Your task to perform on an android device: turn off notifications in google photos Image 0: 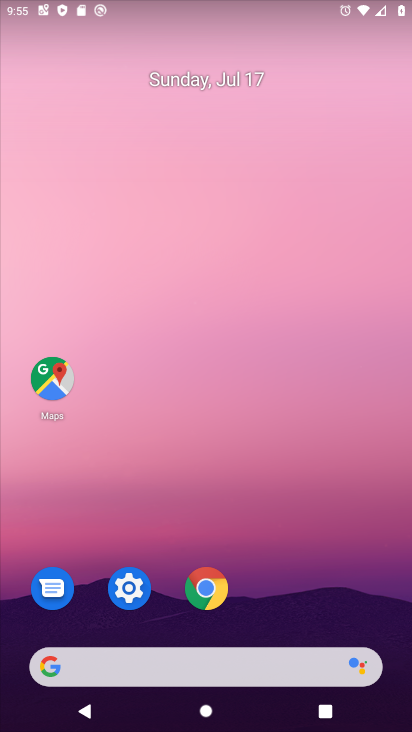
Step 0: drag from (265, 581) to (253, 282)
Your task to perform on an android device: turn off notifications in google photos Image 1: 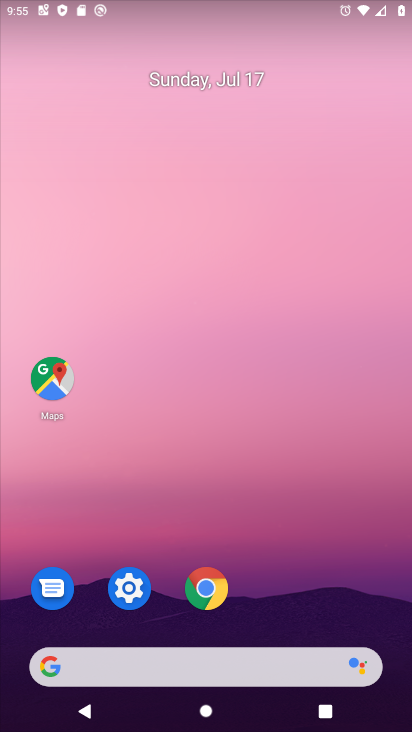
Step 1: drag from (249, 671) to (199, 123)
Your task to perform on an android device: turn off notifications in google photos Image 2: 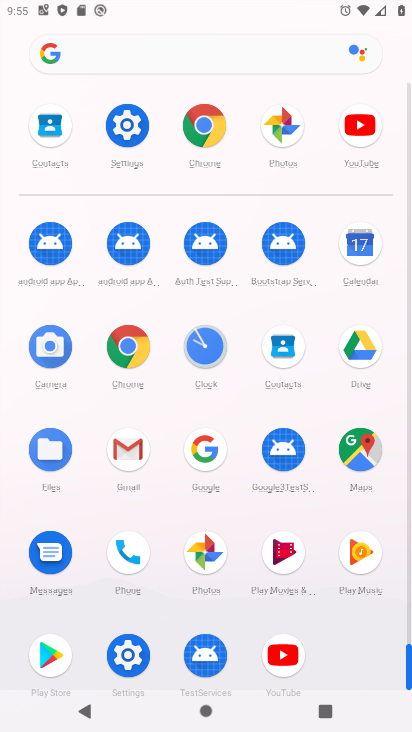
Step 2: click (120, 661)
Your task to perform on an android device: turn off notifications in google photos Image 3: 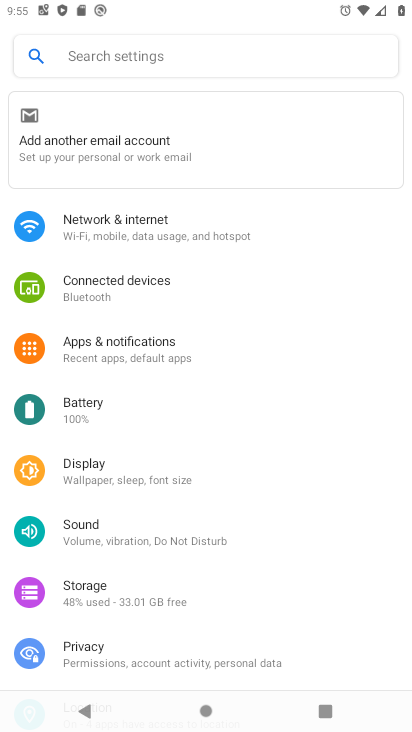
Step 3: click (154, 350)
Your task to perform on an android device: turn off notifications in google photos Image 4: 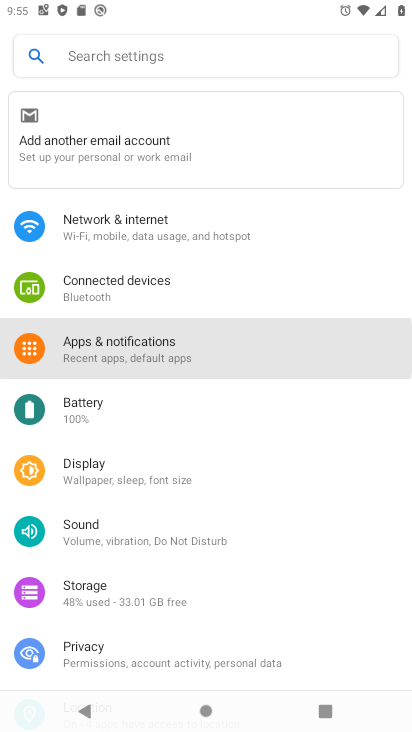
Step 4: click (158, 349)
Your task to perform on an android device: turn off notifications in google photos Image 5: 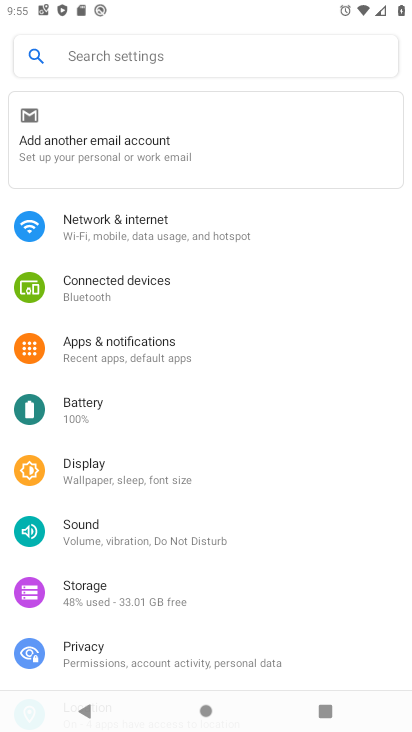
Step 5: click (157, 349)
Your task to perform on an android device: turn off notifications in google photos Image 6: 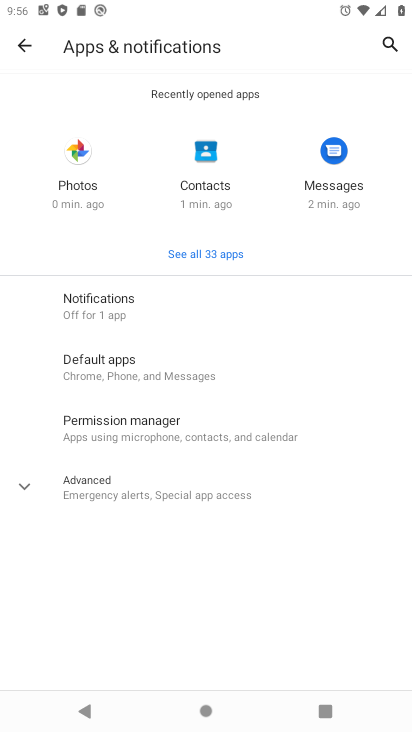
Step 6: click (103, 297)
Your task to perform on an android device: turn off notifications in google photos Image 7: 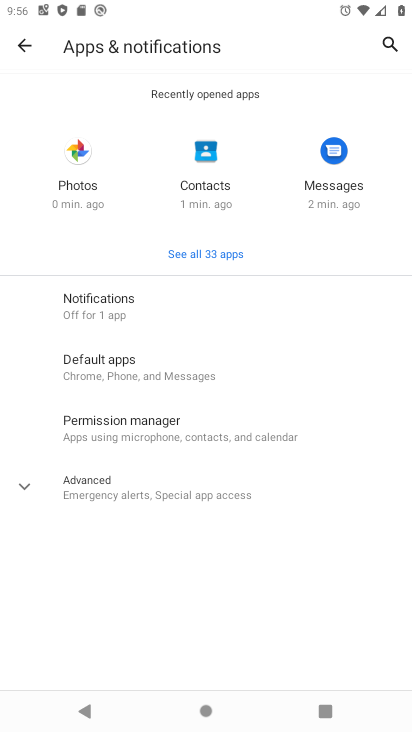
Step 7: click (103, 297)
Your task to perform on an android device: turn off notifications in google photos Image 8: 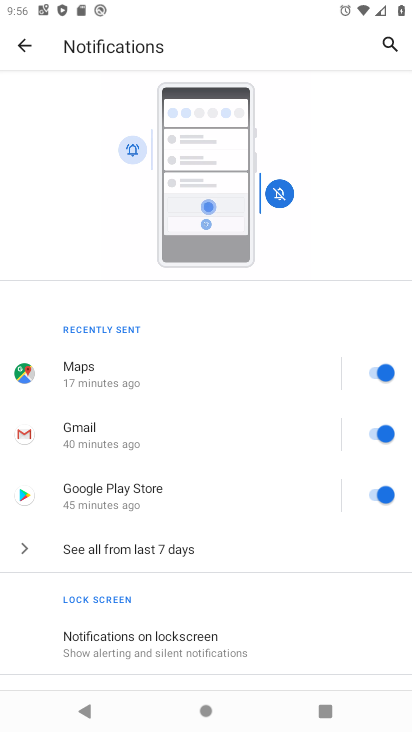
Step 8: drag from (158, 622) to (98, 142)
Your task to perform on an android device: turn off notifications in google photos Image 9: 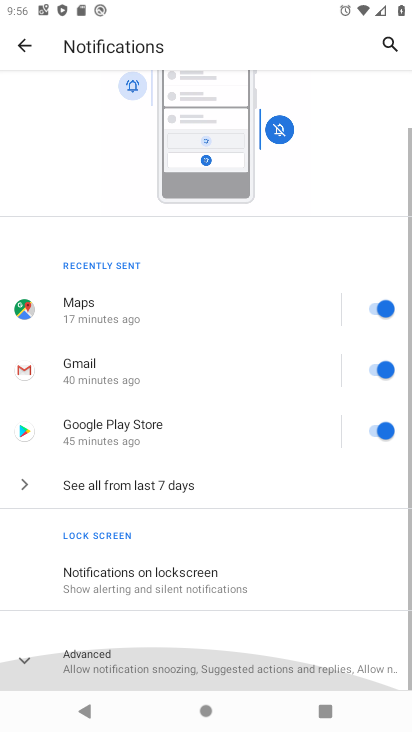
Step 9: drag from (185, 488) to (185, 223)
Your task to perform on an android device: turn off notifications in google photos Image 10: 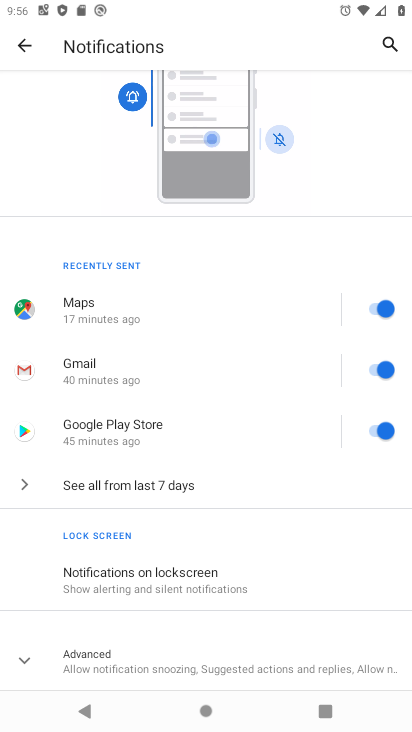
Step 10: click (139, 662)
Your task to perform on an android device: turn off notifications in google photos Image 11: 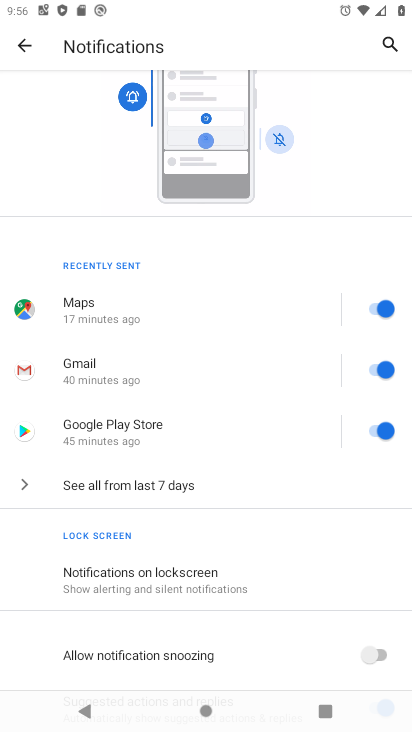
Step 11: drag from (223, 536) to (221, 311)
Your task to perform on an android device: turn off notifications in google photos Image 12: 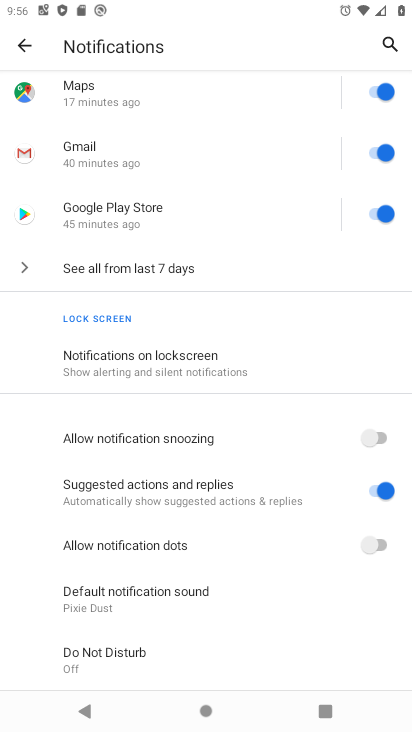
Step 12: click (376, 552)
Your task to perform on an android device: turn off notifications in google photos Image 13: 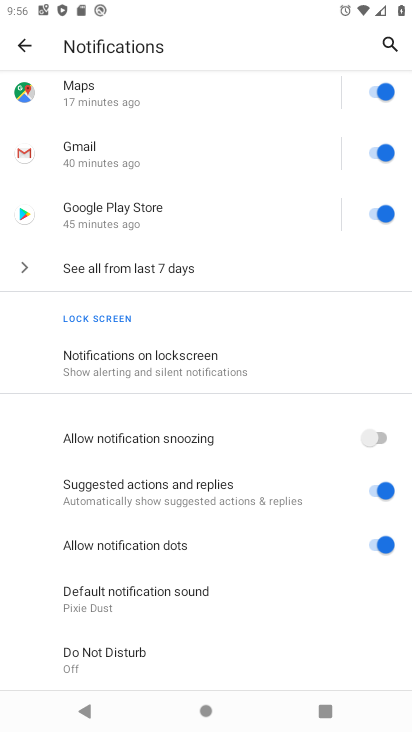
Step 13: click (386, 538)
Your task to perform on an android device: turn off notifications in google photos Image 14: 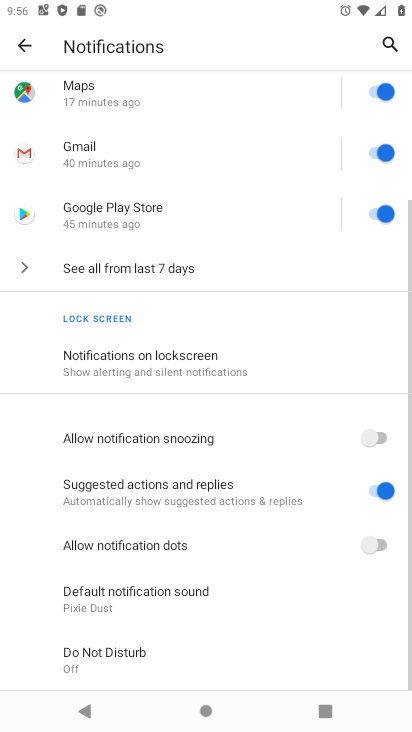
Step 14: click (392, 212)
Your task to perform on an android device: turn off notifications in google photos Image 15: 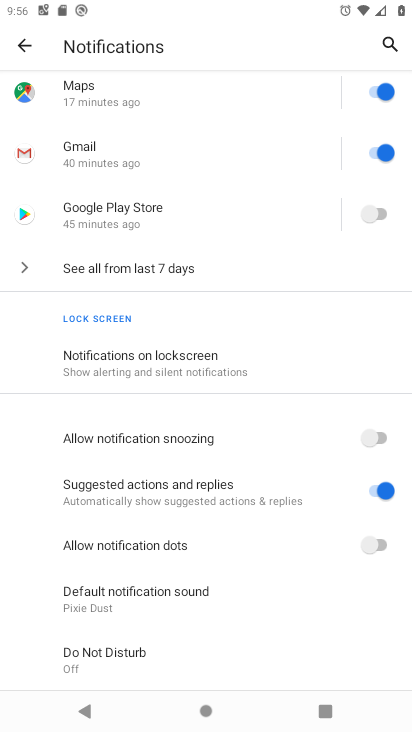
Step 15: click (384, 145)
Your task to perform on an android device: turn off notifications in google photos Image 16: 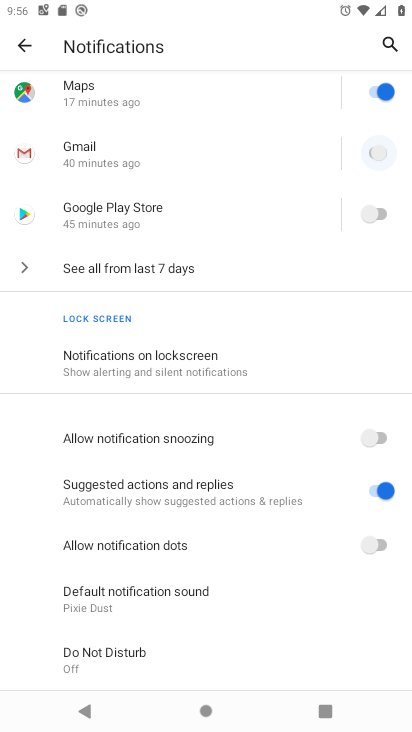
Step 16: click (384, 80)
Your task to perform on an android device: turn off notifications in google photos Image 17: 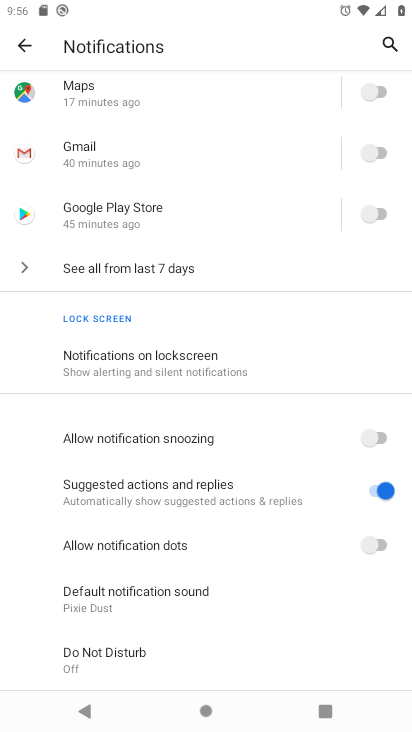
Step 17: click (384, 80)
Your task to perform on an android device: turn off notifications in google photos Image 18: 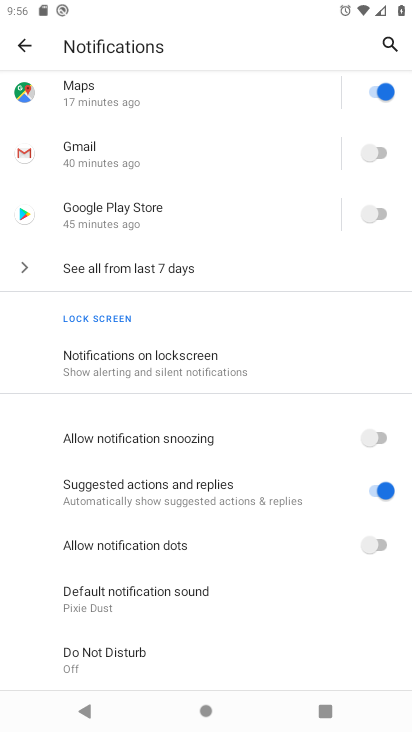
Step 18: click (377, 86)
Your task to perform on an android device: turn off notifications in google photos Image 19: 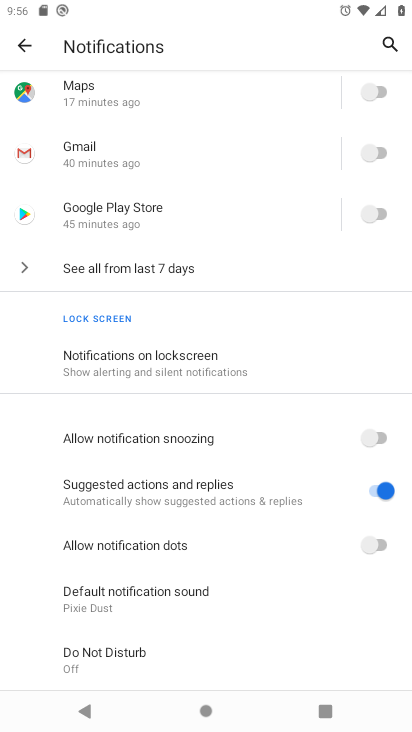
Step 19: task complete